Your task to perform on an android device: check battery use Image 0: 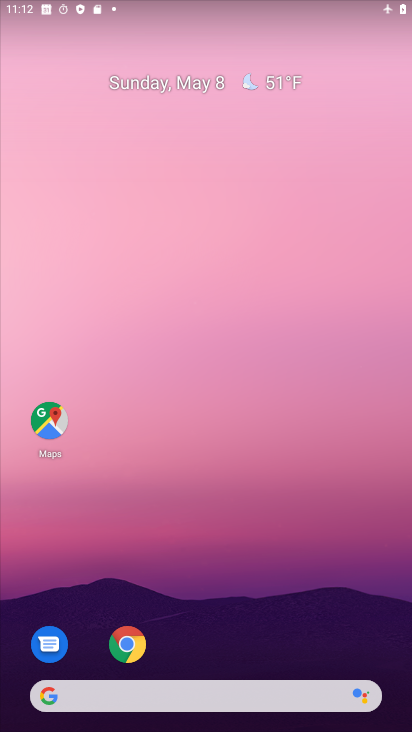
Step 0: drag from (186, 673) to (320, 170)
Your task to perform on an android device: check battery use Image 1: 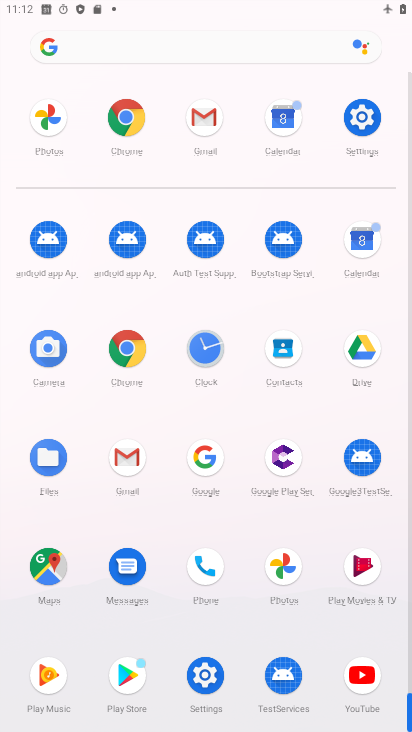
Step 1: click (365, 110)
Your task to perform on an android device: check battery use Image 2: 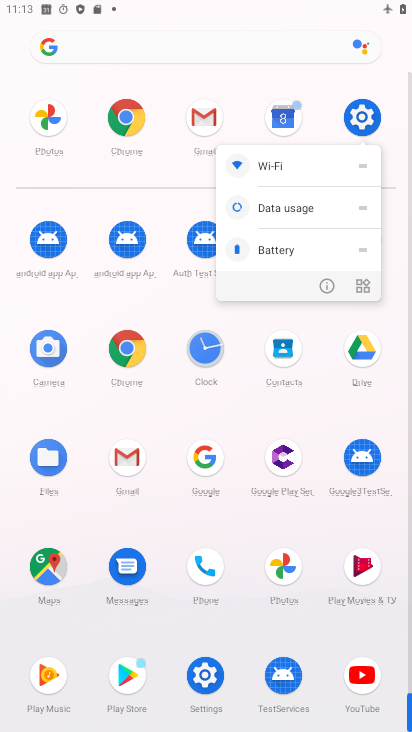
Step 2: click (316, 292)
Your task to perform on an android device: check battery use Image 3: 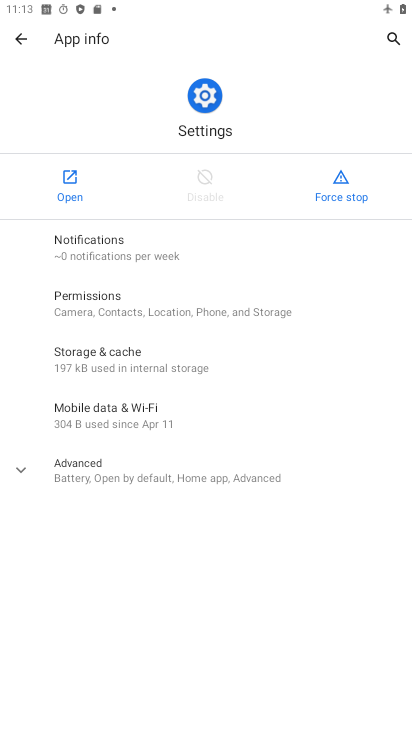
Step 3: click (74, 169)
Your task to perform on an android device: check battery use Image 4: 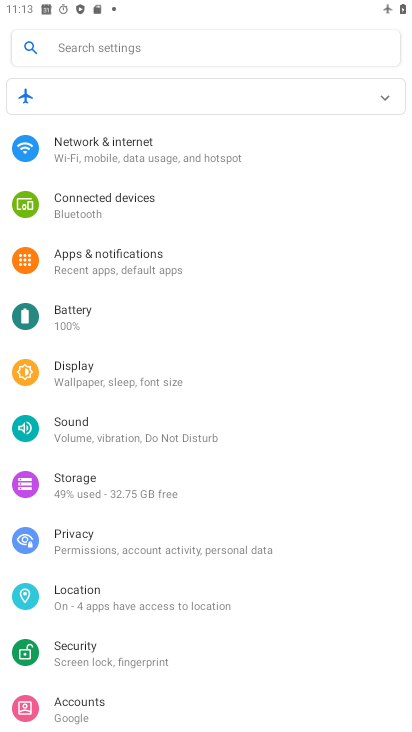
Step 4: click (86, 324)
Your task to perform on an android device: check battery use Image 5: 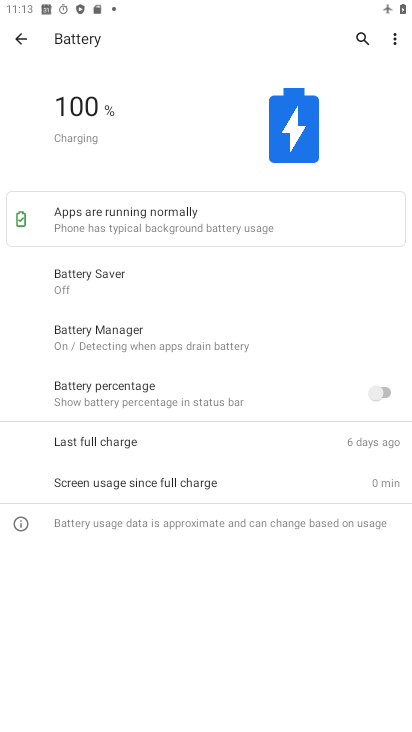
Step 5: click (399, 31)
Your task to perform on an android device: check battery use Image 6: 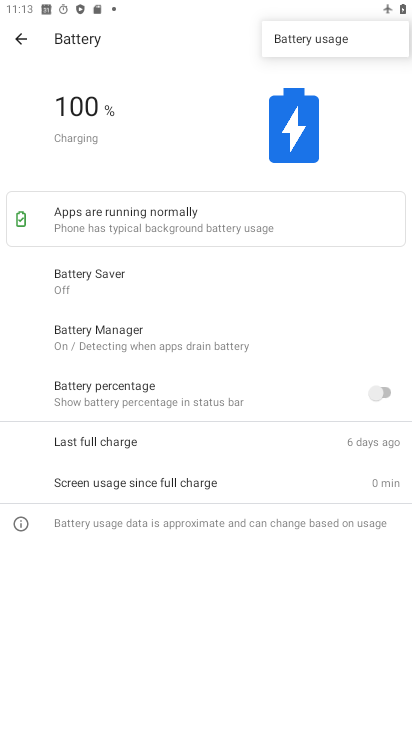
Step 6: click (362, 34)
Your task to perform on an android device: check battery use Image 7: 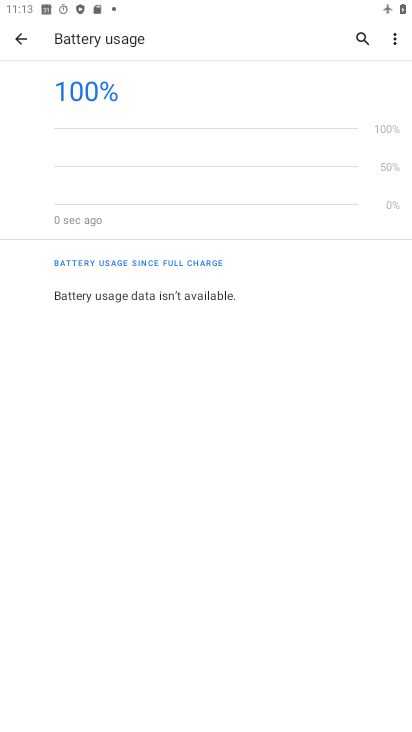
Step 7: task complete